Your task to perform on an android device: Go to Google maps Image 0: 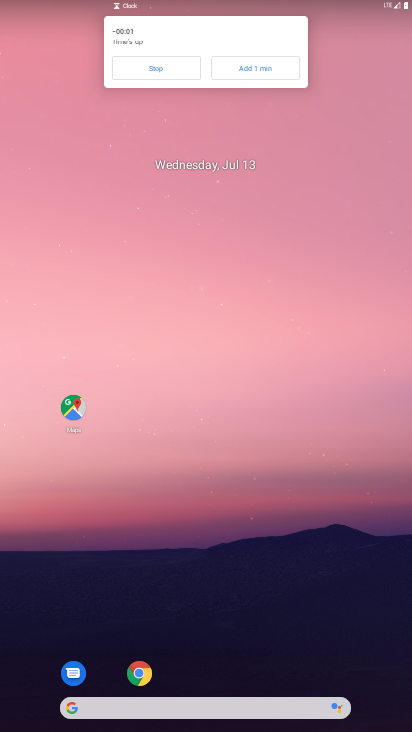
Step 0: drag from (149, 605) to (152, 275)
Your task to perform on an android device: Go to Google maps Image 1: 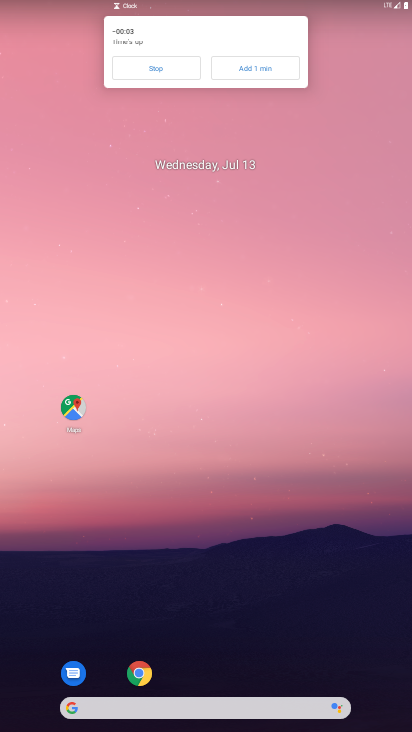
Step 1: drag from (238, 647) to (227, 207)
Your task to perform on an android device: Go to Google maps Image 2: 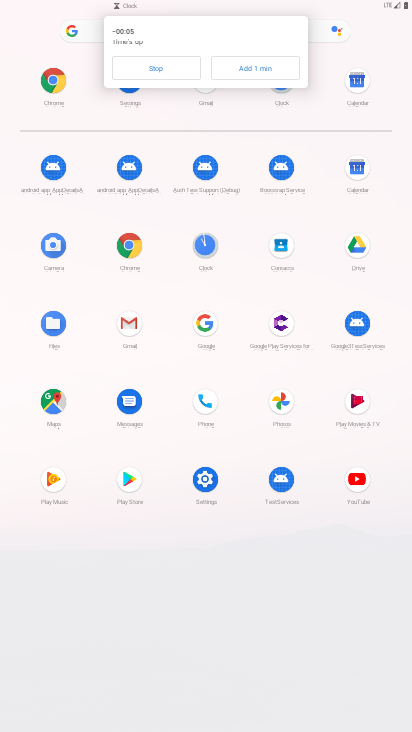
Step 2: click (41, 400)
Your task to perform on an android device: Go to Google maps Image 3: 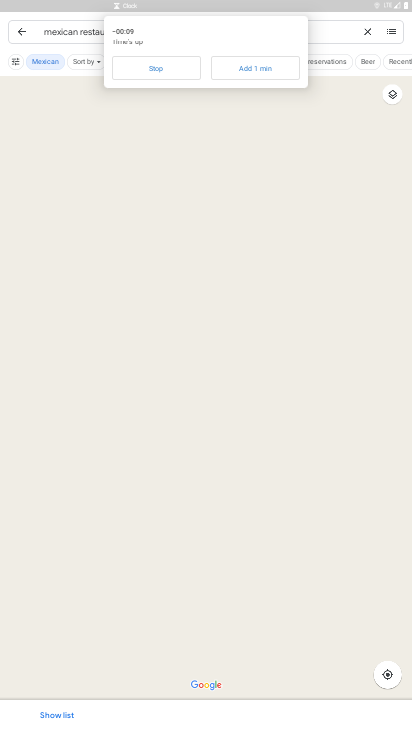
Step 3: drag from (226, 631) to (255, 173)
Your task to perform on an android device: Go to Google maps Image 4: 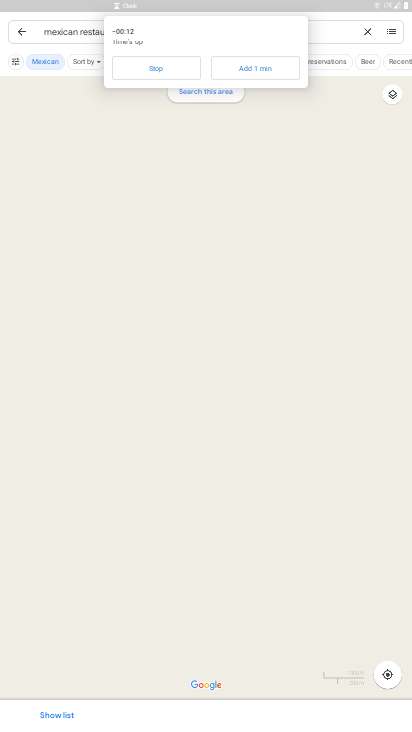
Step 4: click (162, 73)
Your task to perform on an android device: Go to Google maps Image 5: 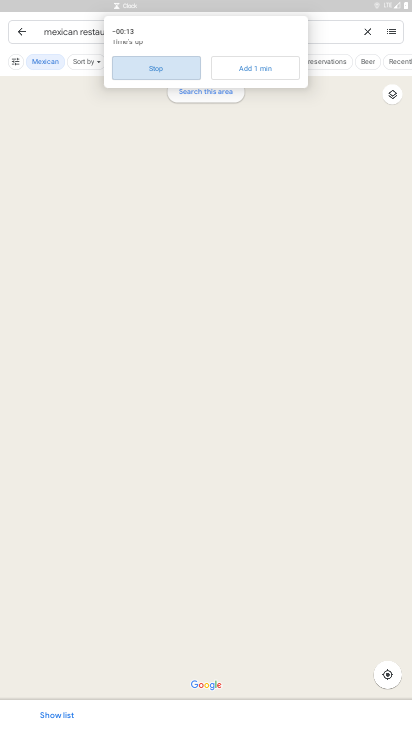
Step 5: drag from (116, 381) to (150, 261)
Your task to perform on an android device: Go to Google maps Image 6: 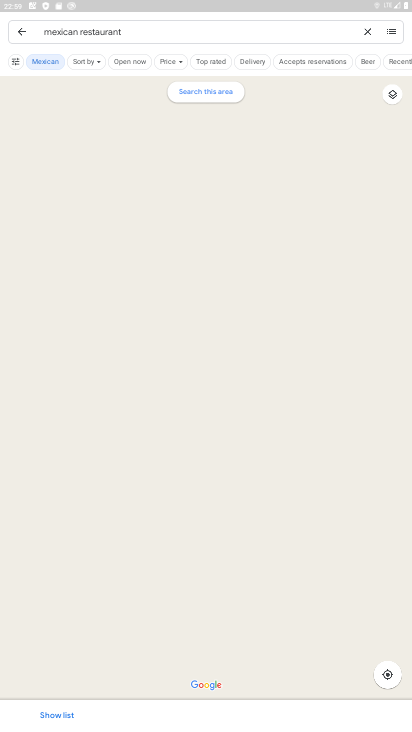
Step 6: click (16, 30)
Your task to perform on an android device: Go to Google maps Image 7: 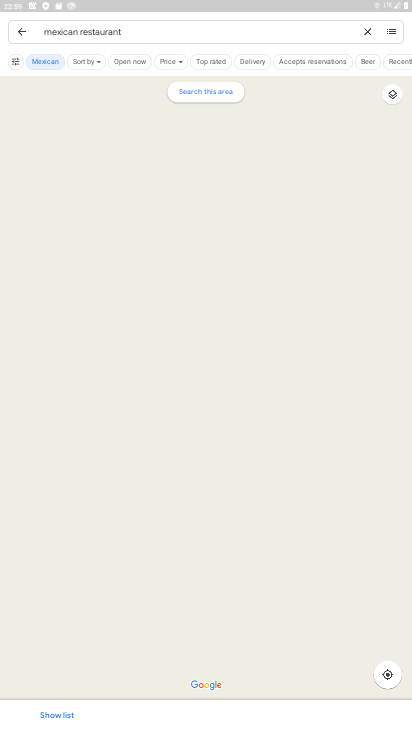
Step 7: task complete